Your task to perform on an android device: toggle notifications settings in the gmail app Image 0: 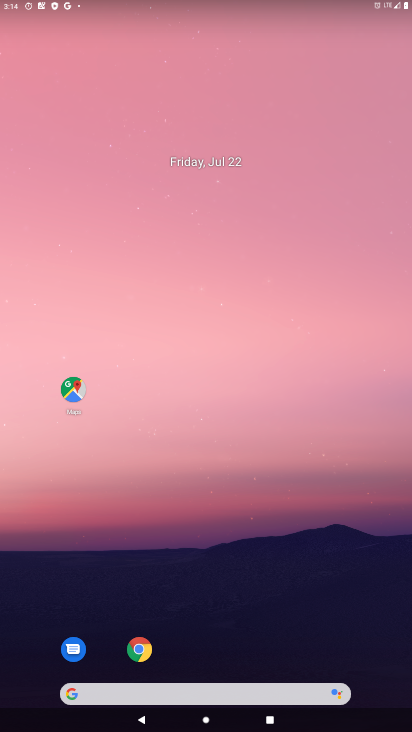
Step 0: drag from (249, 644) to (242, 86)
Your task to perform on an android device: toggle notifications settings in the gmail app Image 1: 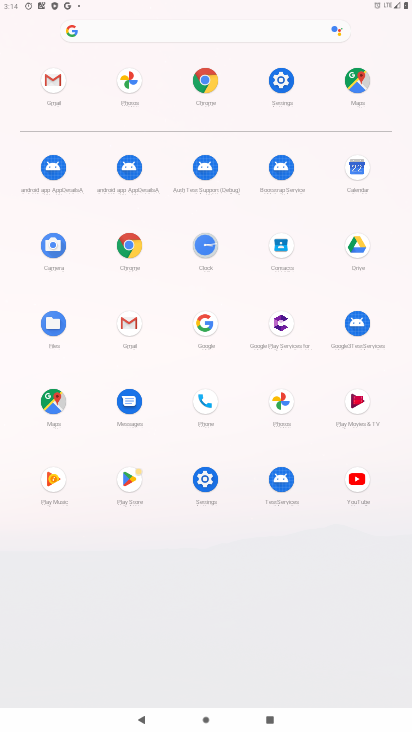
Step 1: click (130, 329)
Your task to perform on an android device: toggle notifications settings in the gmail app Image 2: 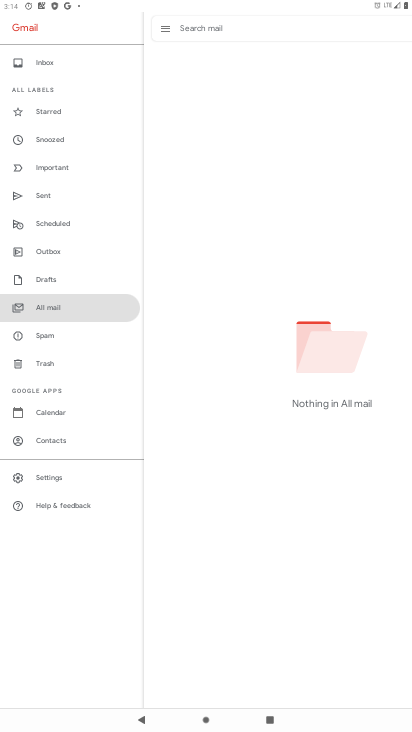
Step 2: click (48, 476)
Your task to perform on an android device: toggle notifications settings in the gmail app Image 3: 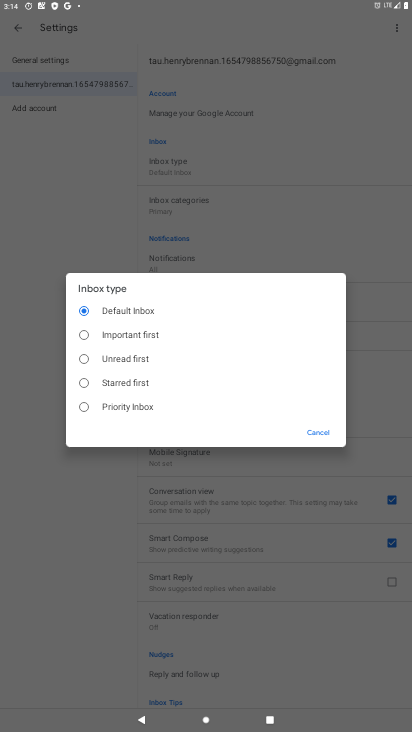
Step 3: click (323, 442)
Your task to perform on an android device: toggle notifications settings in the gmail app Image 4: 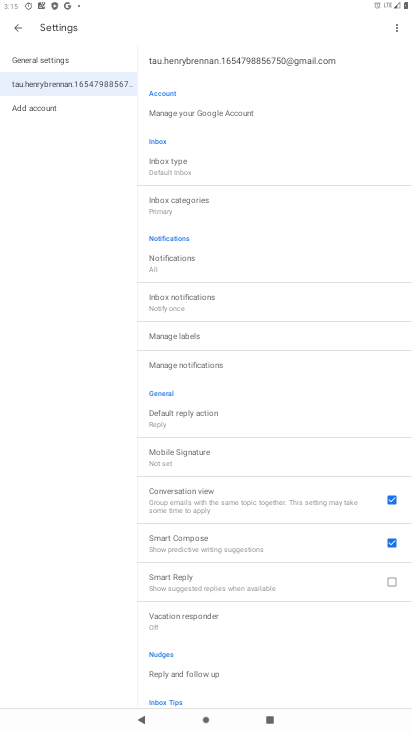
Step 4: click (212, 369)
Your task to perform on an android device: toggle notifications settings in the gmail app Image 5: 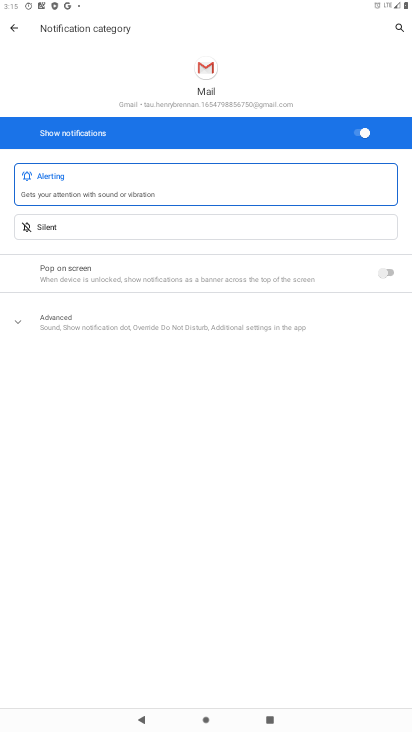
Step 5: click (363, 127)
Your task to perform on an android device: toggle notifications settings in the gmail app Image 6: 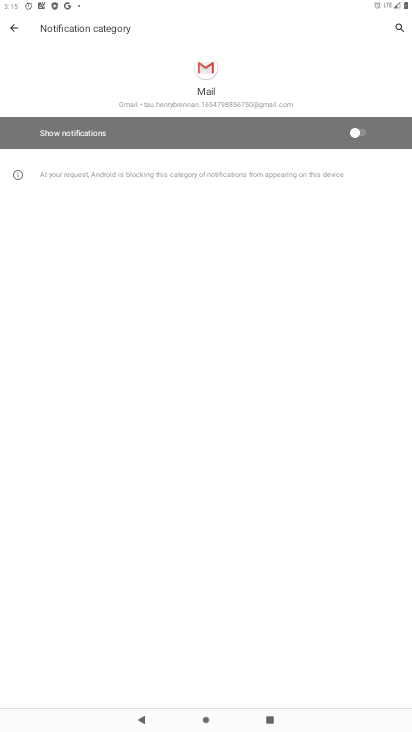
Step 6: task complete